Your task to perform on an android device: Go to Android settings Image 0: 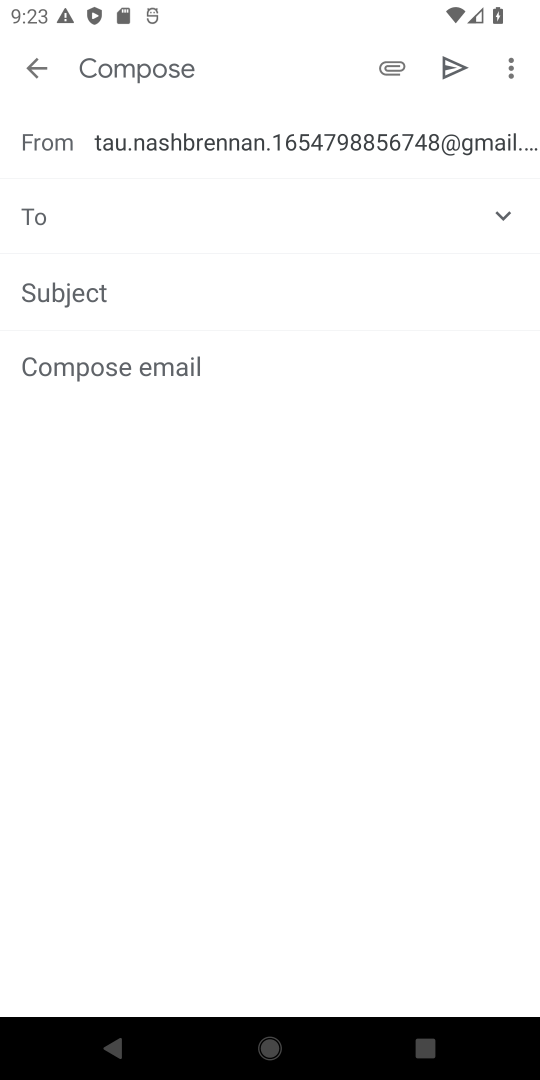
Step 0: press home button
Your task to perform on an android device: Go to Android settings Image 1: 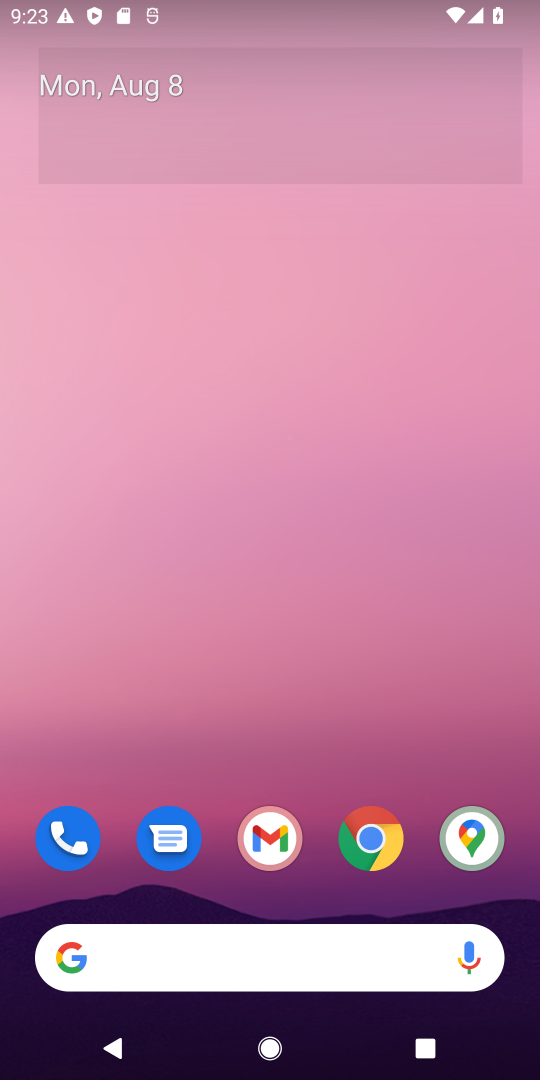
Step 1: drag from (322, 875) to (311, 12)
Your task to perform on an android device: Go to Android settings Image 2: 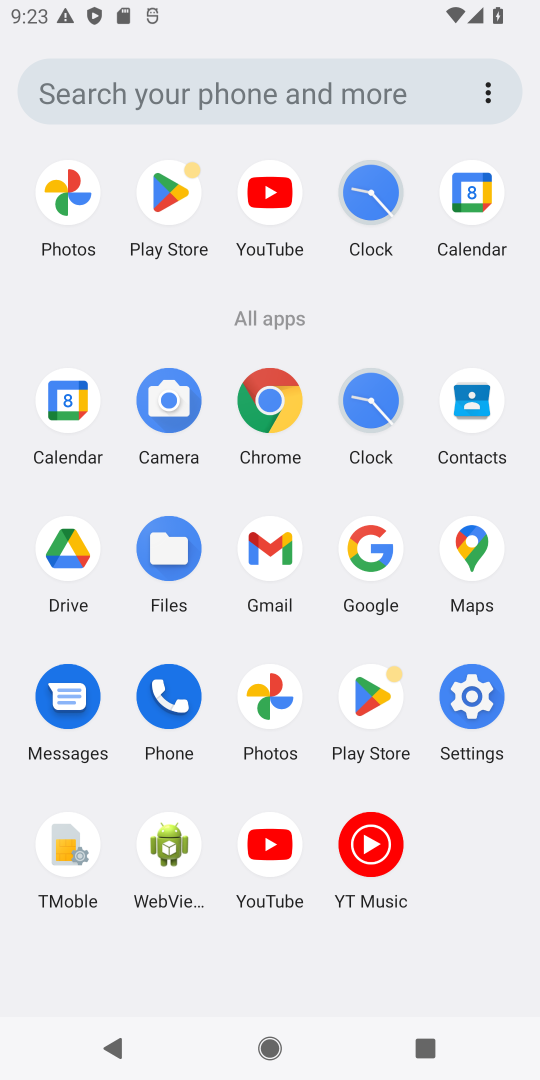
Step 2: click (474, 697)
Your task to perform on an android device: Go to Android settings Image 3: 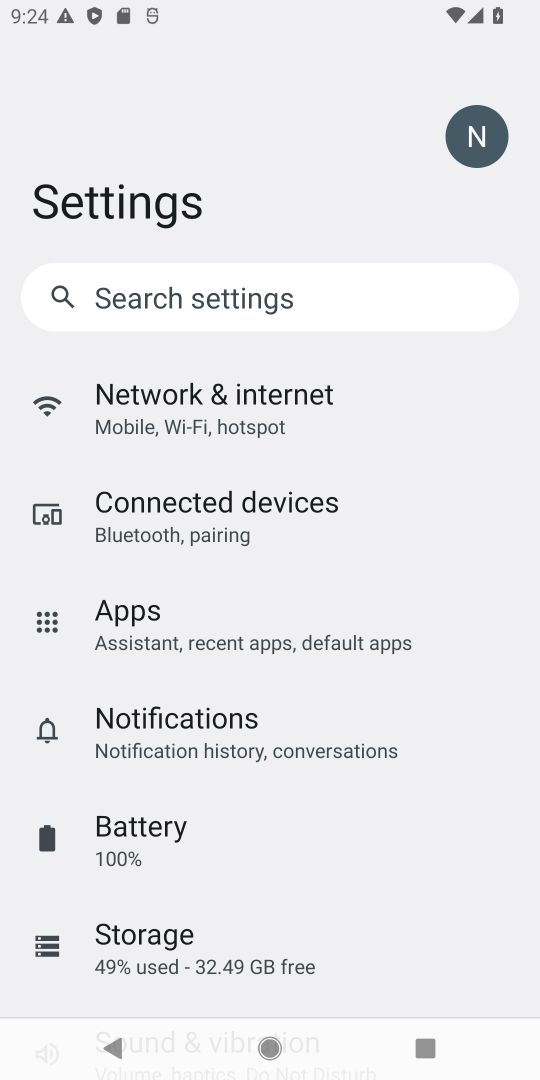
Step 3: task complete